Your task to perform on an android device: Open battery settings Image 0: 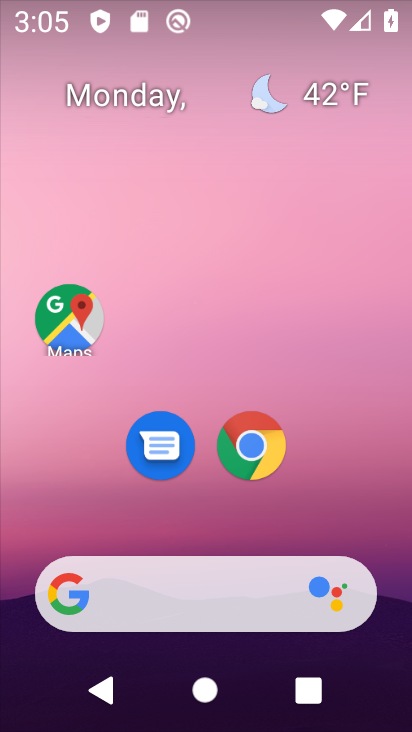
Step 0: drag from (13, 497) to (191, 64)
Your task to perform on an android device: Open battery settings Image 1: 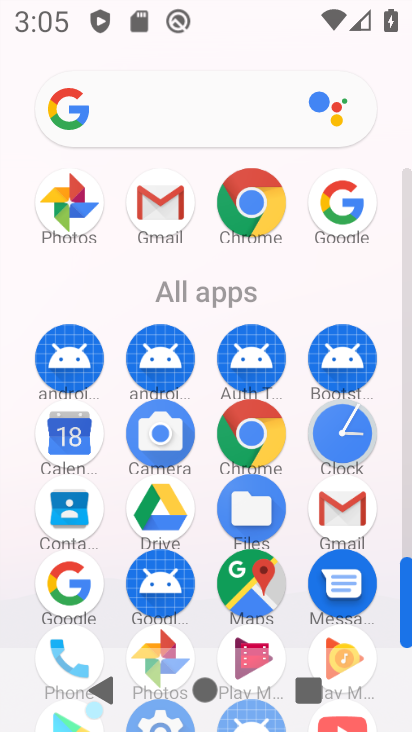
Step 1: drag from (207, 602) to (202, 295)
Your task to perform on an android device: Open battery settings Image 2: 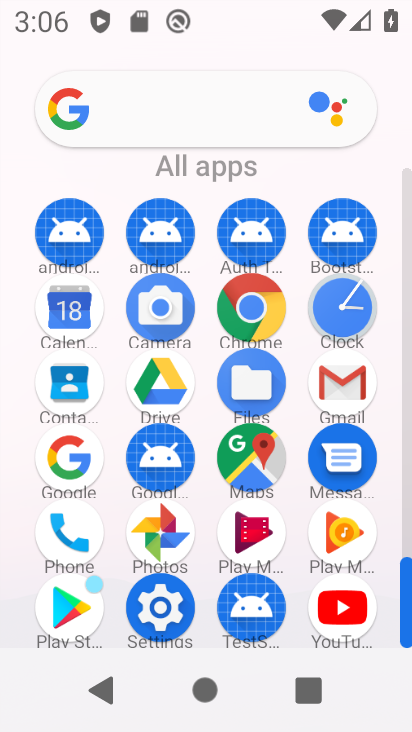
Step 2: click (164, 589)
Your task to perform on an android device: Open battery settings Image 3: 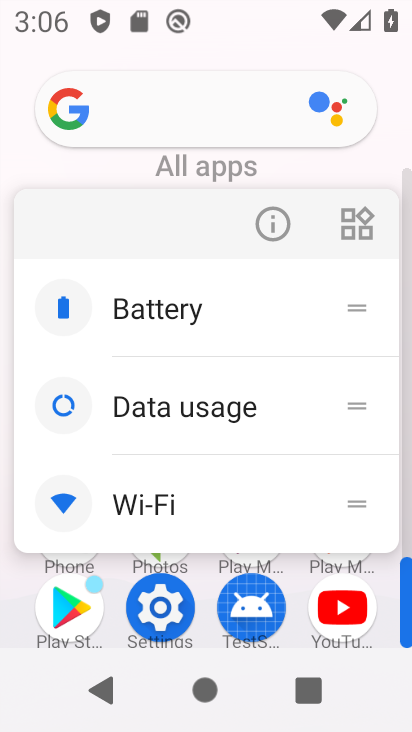
Step 3: click (164, 589)
Your task to perform on an android device: Open battery settings Image 4: 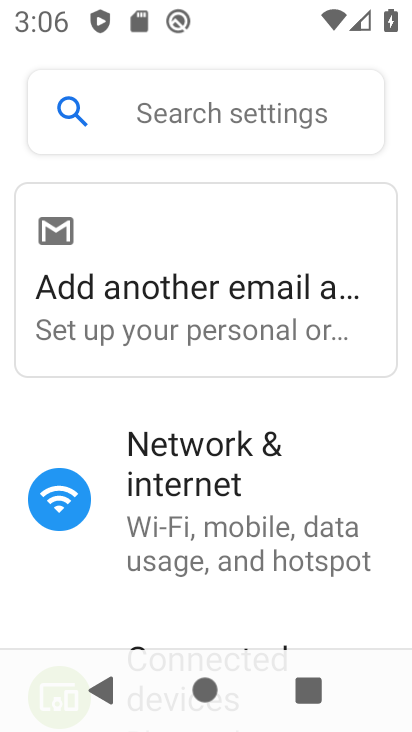
Step 4: drag from (153, 511) to (217, 156)
Your task to perform on an android device: Open battery settings Image 5: 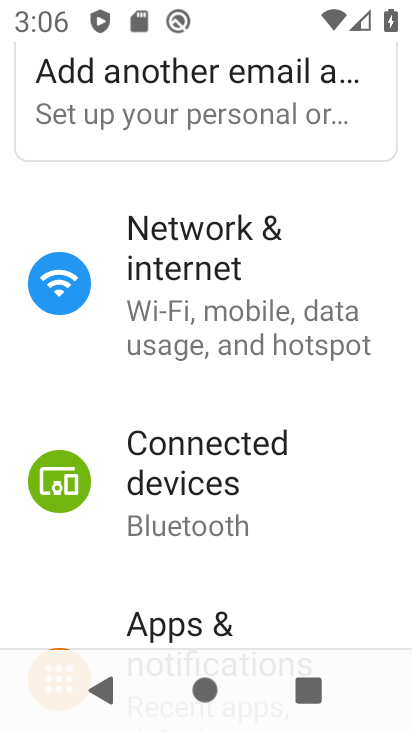
Step 5: drag from (151, 545) to (219, 197)
Your task to perform on an android device: Open battery settings Image 6: 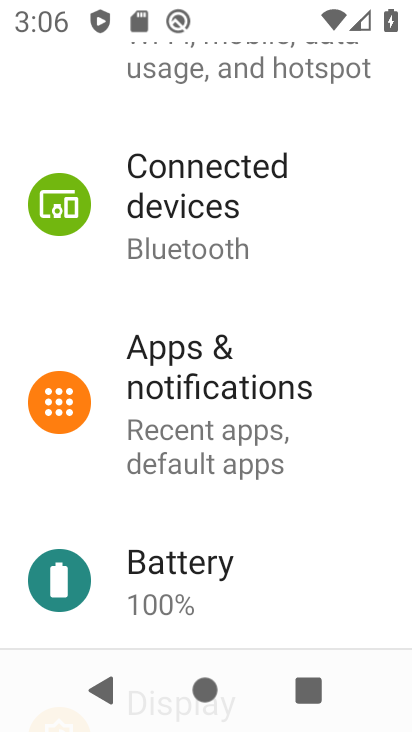
Step 6: click (188, 567)
Your task to perform on an android device: Open battery settings Image 7: 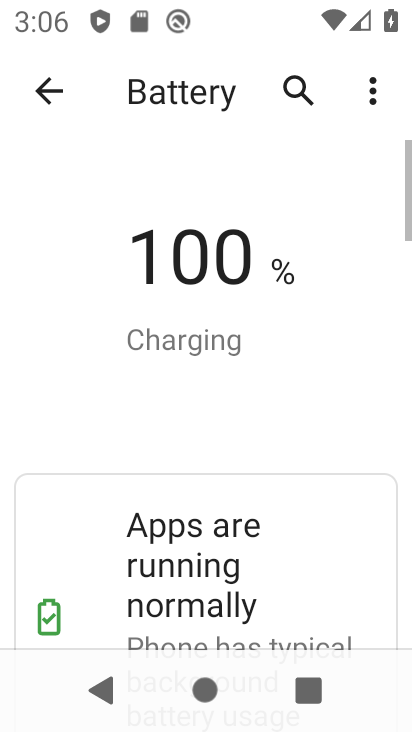
Step 7: task complete